Your task to perform on an android device: Open notification settings Image 0: 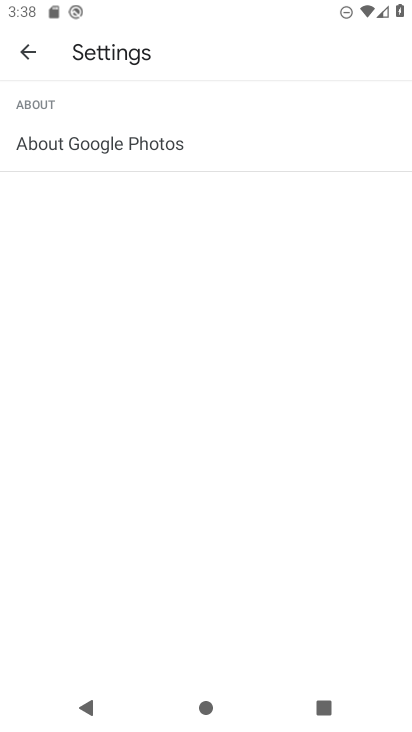
Step 0: press home button
Your task to perform on an android device: Open notification settings Image 1: 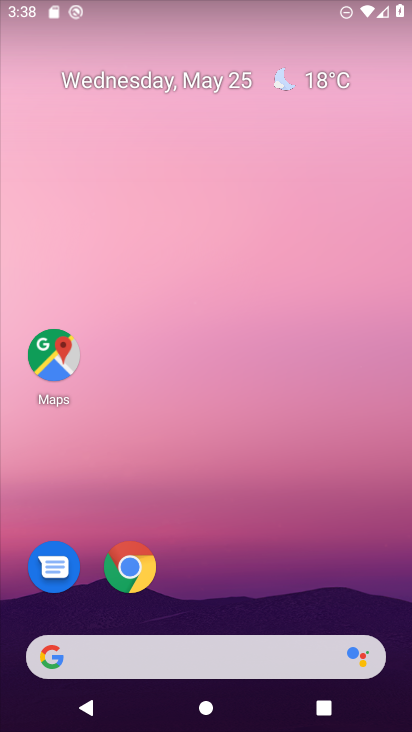
Step 1: drag from (372, 585) to (393, 153)
Your task to perform on an android device: Open notification settings Image 2: 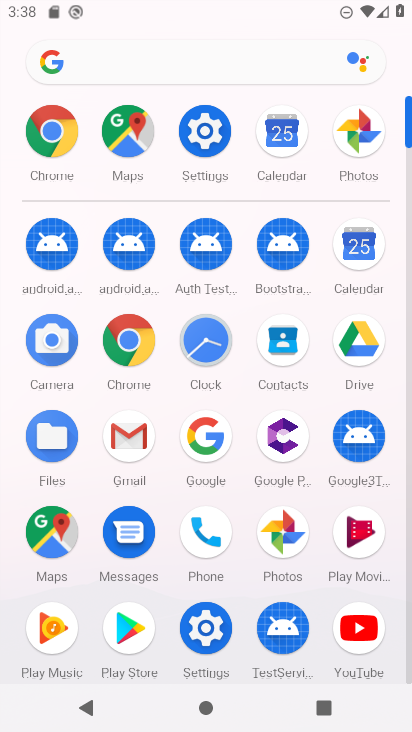
Step 2: click (222, 633)
Your task to perform on an android device: Open notification settings Image 3: 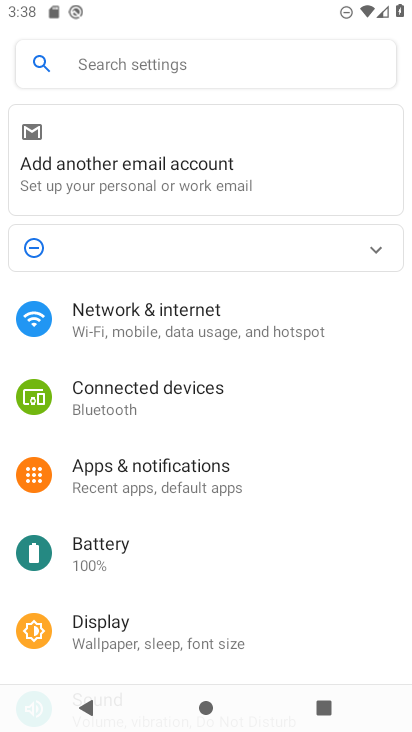
Step 3: drag from (303, 608) to (328, 478)
Your task to perform on an android device: Open notification settings Image 4: 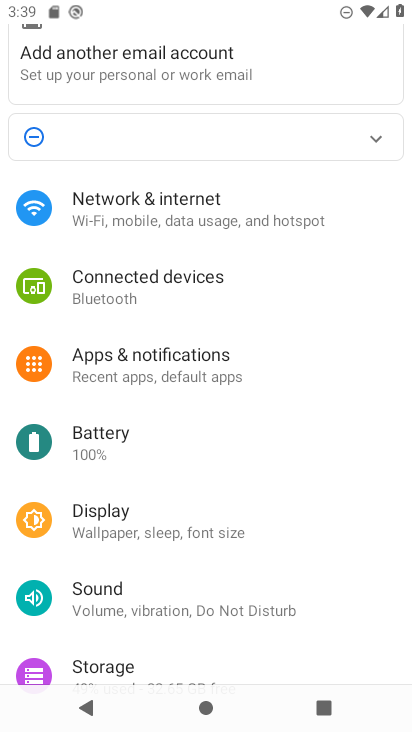
Step 4: drag from (344, 601) to (341, 512)
Your task to perform on an android device: Open notification settings Image 5: 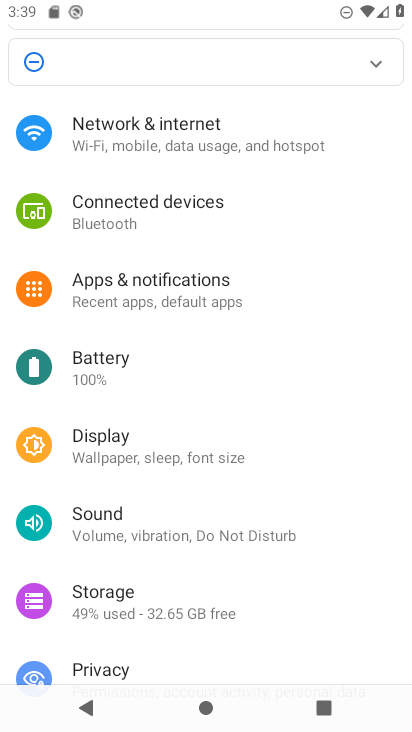
Step 5: drag from (330, 601) to (322, 529)
Your task to perform on an android device: Open notification settings Image 6: 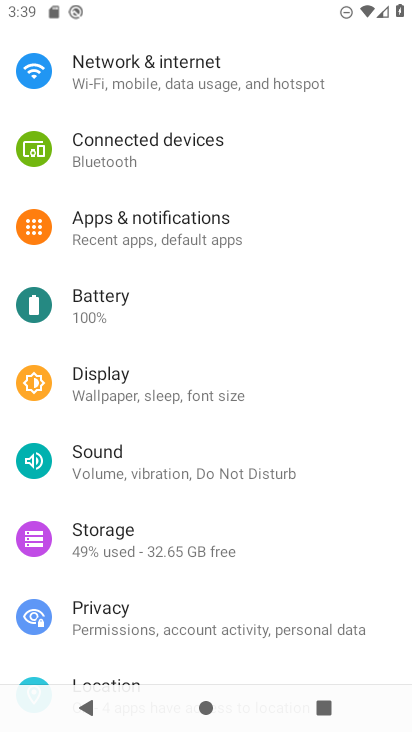
Step 6: drag from (345, 600) to (342, 510)
Your task to perform on an android device: Open notification settings Image 7: 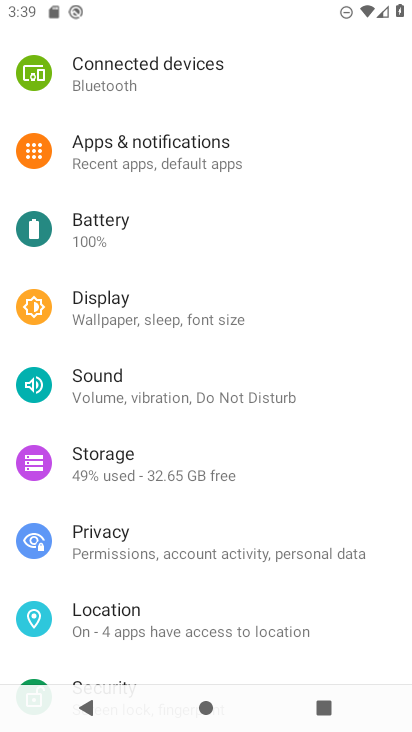
Step 7: drag from (361, 614) to (377, 542)
Your task to perform on an android device: Open notification settings Image 8: 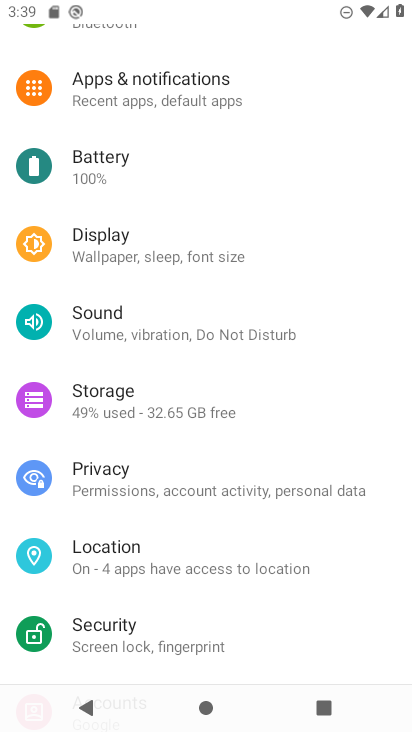
Step 8: drag from (363, 609) to (352, 538)
Your task to perform on an android device: Open notification settings Image 9: 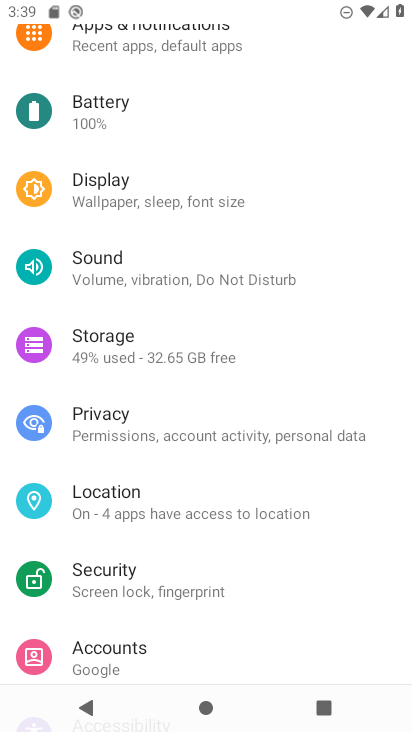
Step 9: drag from (374, 606) to (386, 505)
Your task to perform on an android device: Open notification settings Image 10: 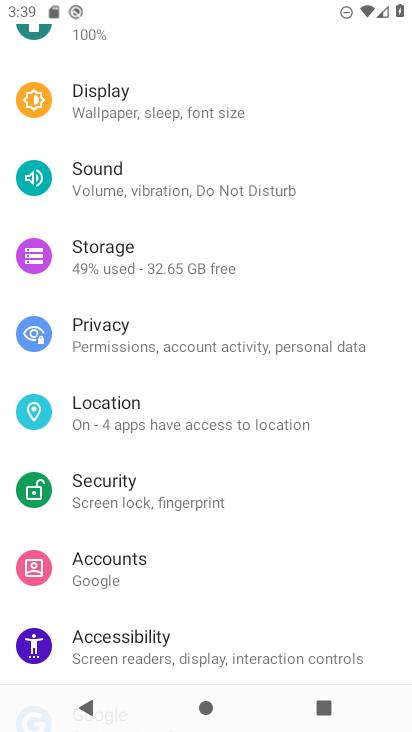
Step 10: drag from (371, 593) to (378, 511)
Your task to perform on an android device: Open notification settings Image 11: 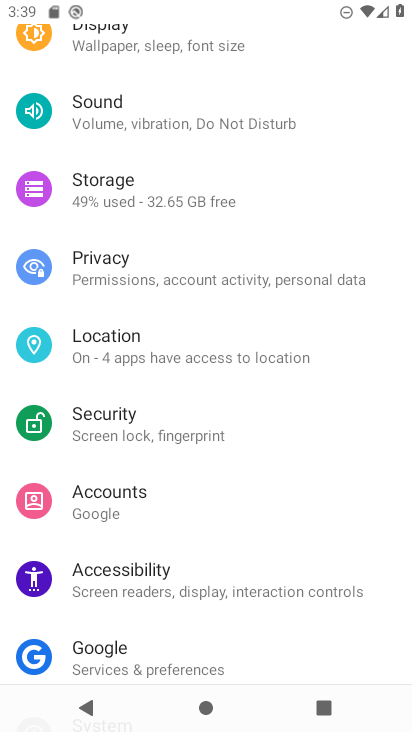
Step 11: drag from (377, 618) to (383, 515)
Your task to perform on an android device: Open notification settings Image 12: 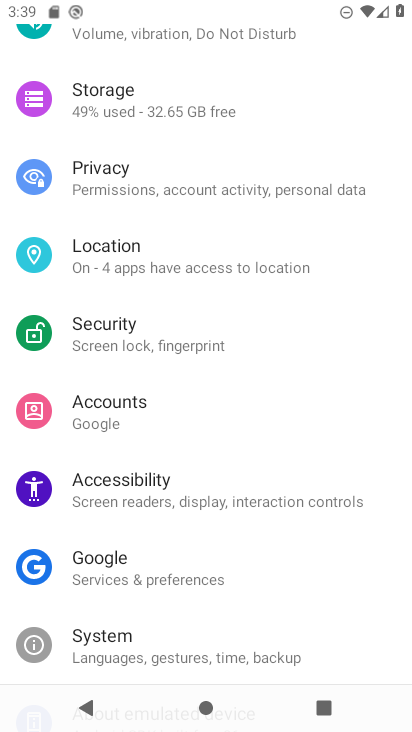
Step 12: drag from (376, 628) to (383, 520)
Your task to perform on an android device: Open notification settings Image 13: 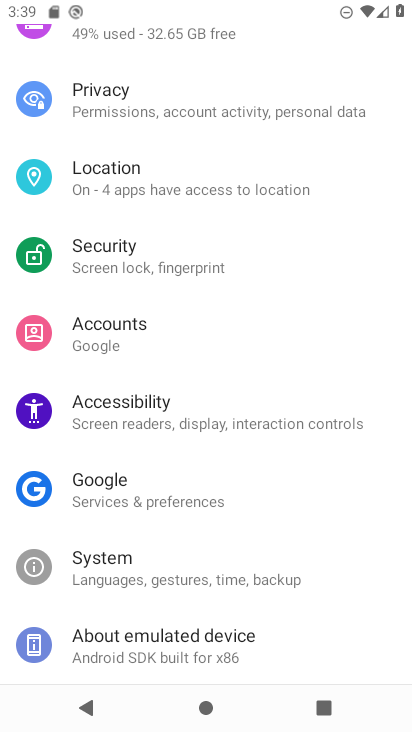
Step 13: drag from (351, 630) to (367, 532)
Your task to perform on an android device: Open notification settings Image 14: 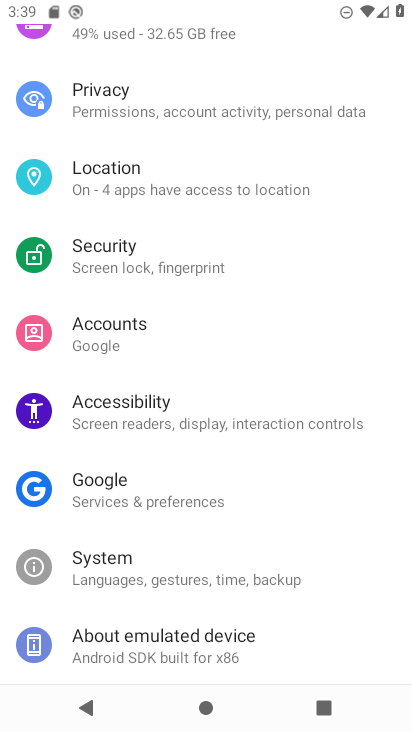
Step 14: drag from (367, 419) to (378, 523)
Your task to perform on an android device: Open notification settings Image 15: 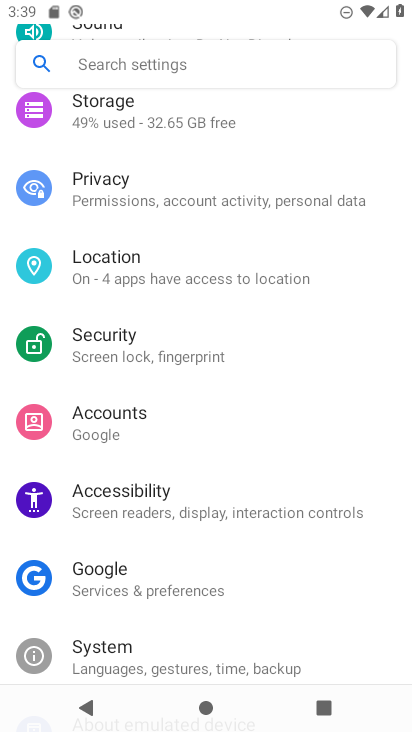
Step 15: drag from (369, 420) to (370, 523)
Your task to perform on an android device: Open notification settings Image 16: 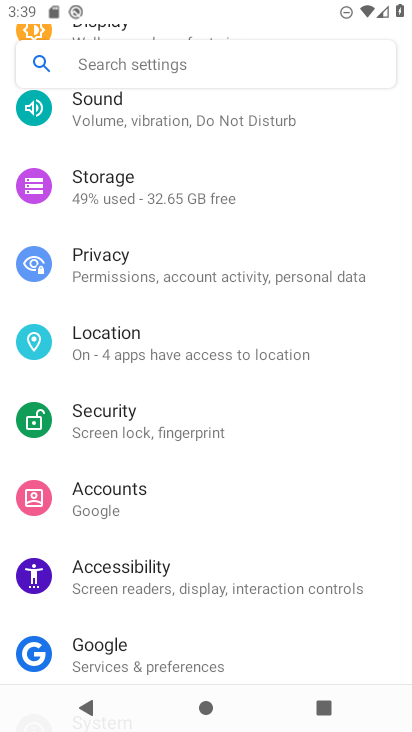
Step 16: drag from (377, 397) to (380, 493)
Your task to perform on an android device: Open notification settings Image 17: 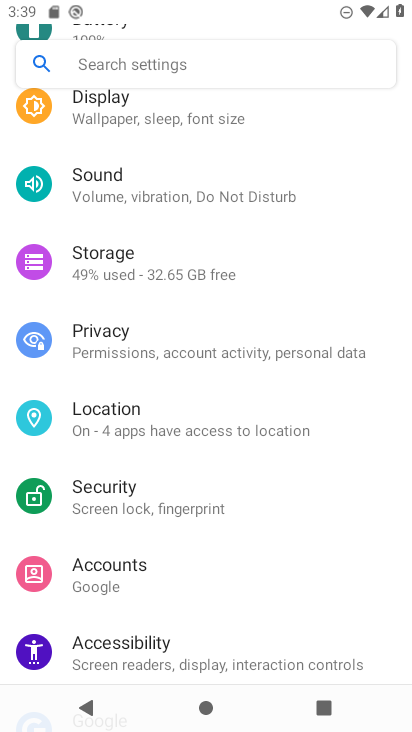
Step 17: drag from (377, 405) to (369, 479)
Your task to perform on an android device: Open notification settings Image 18: 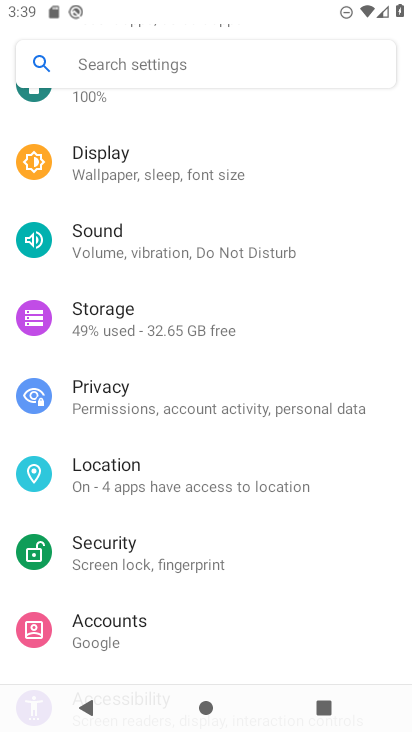
Step 18: drag from (361, 384) to (361, 481)
Your task to perform on an android device: Open notification settings Image 19: 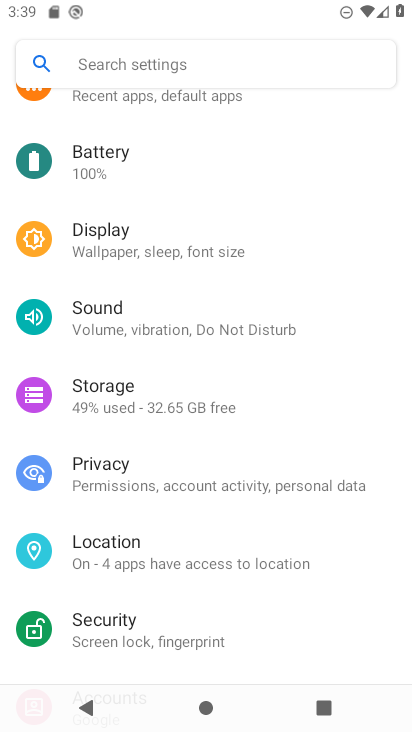
Step 19: drag from (357, 351) to (348, 457)
Your task to perform on an android device: Open notification settings Image 20: 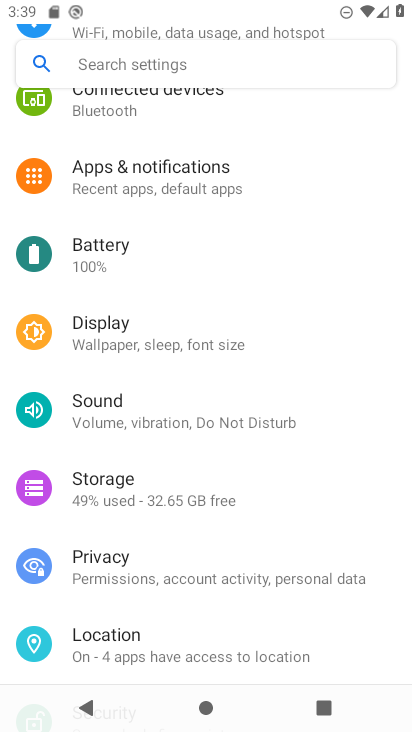
Step 20: drag from (335, 348) to (344, 426)
Your task to perform on an android device: Open notification settings Image 21: 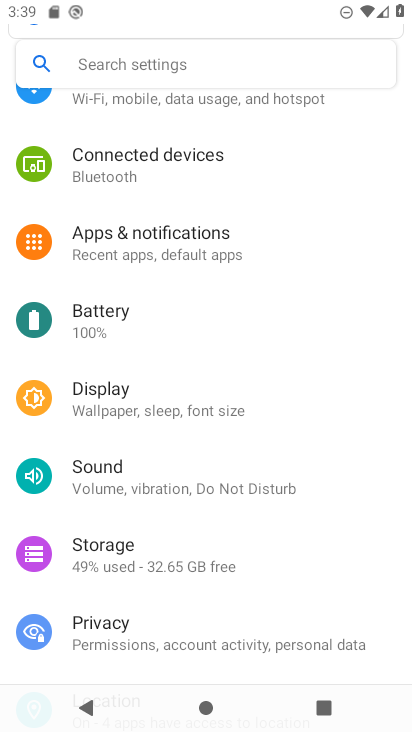
Step 21: drag from (355, 304) to (357, 403)
Your task to perform on an android device: Open notification settings Image 22: 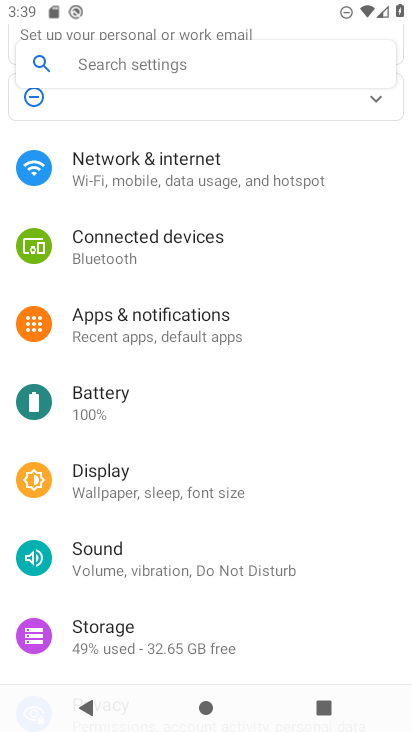
Step 22: drag from (360, 321) to (364, 406)
Your task to perform on an android device: Open notification settings Image 23: 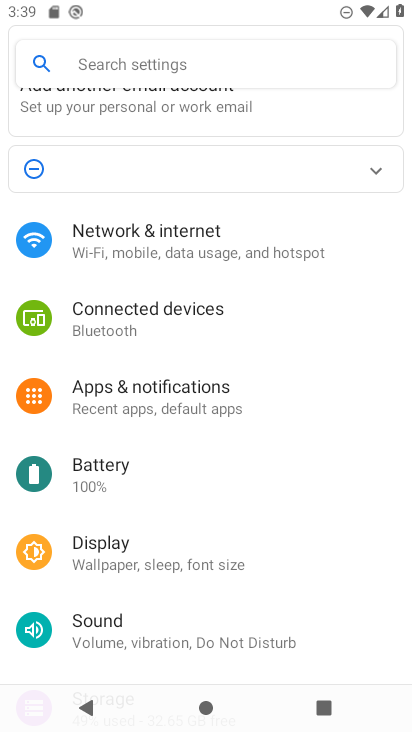
Step 23: click (273, 420)
Your task to perform on an android device: Open notification settings Image 24: 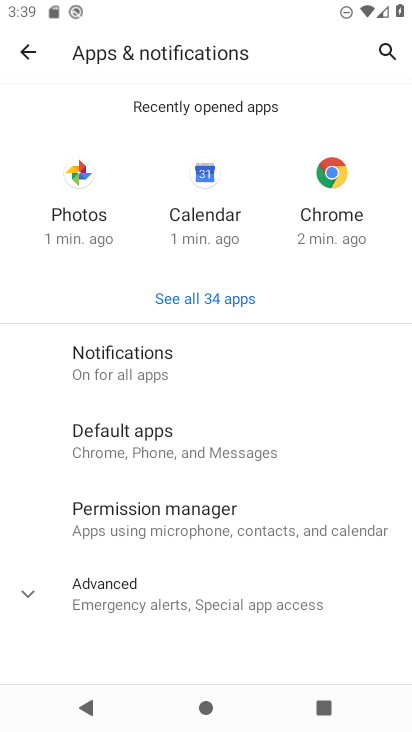
Step 24: click (155, 381)
Your task to perform on an android device: Open notification settings Image 25: 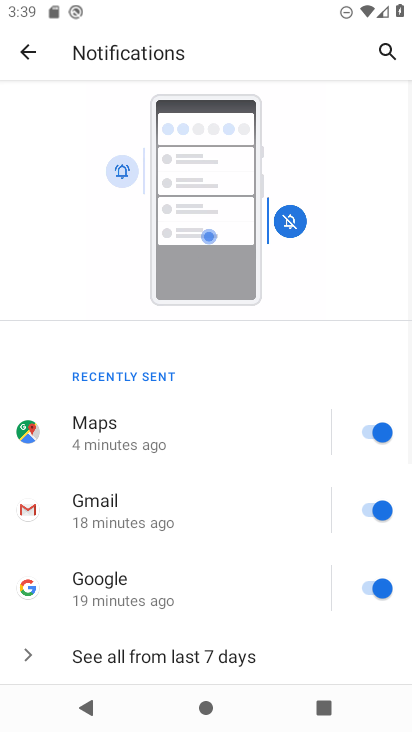
Step 25: task complete